Your task to perform on an android device: Open Youtube and go to "Your channel" Image 0: 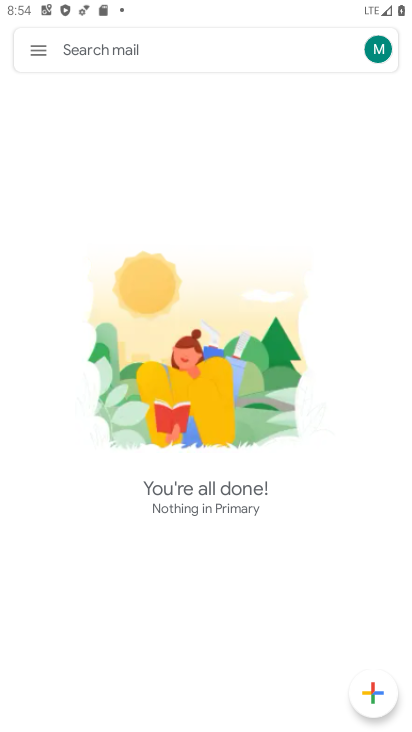
Step 0: press home button
Your task to perform on an android device: Open Youtube and go to "Your channel" Image 1: 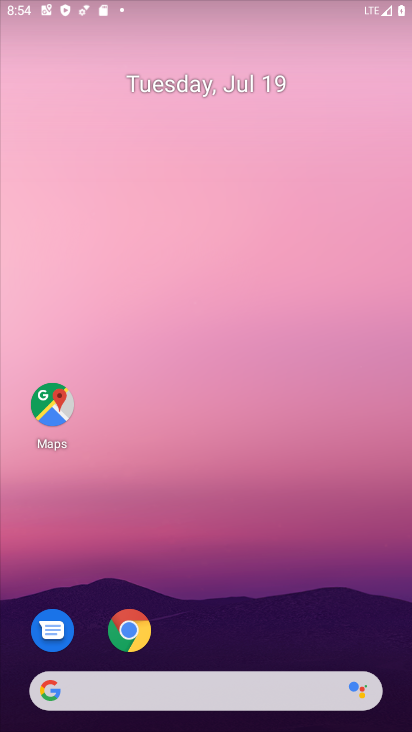
Step 1: drag from (183, 656) to (239, 85)
Your task to perform on an android device: Open Youtube and go to "Your channel" Image 2: 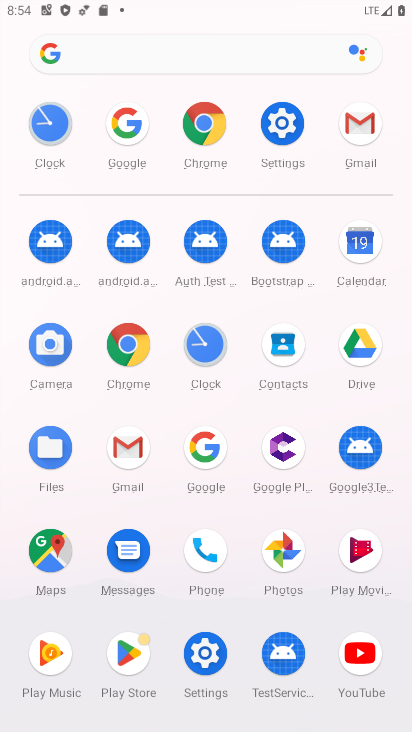
Step 2: click (355, 649)
Your task to perform on an android device: Open Youtube and go to "Your channel" Image 3: 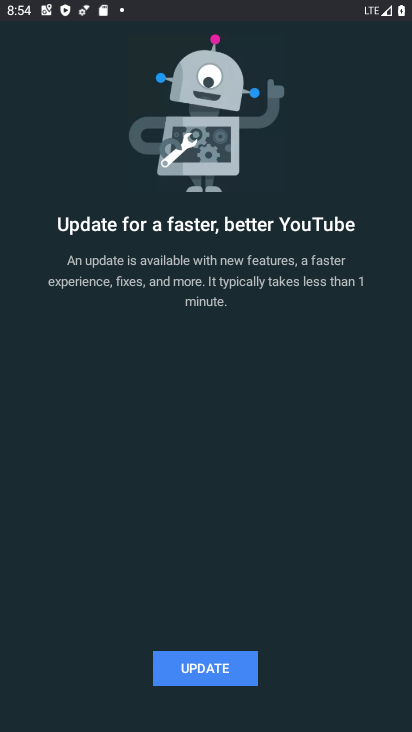
Step 3: click (210, 674)
Your task to perform on an android device: Open Youtube and go to "Your channel" Image 4: 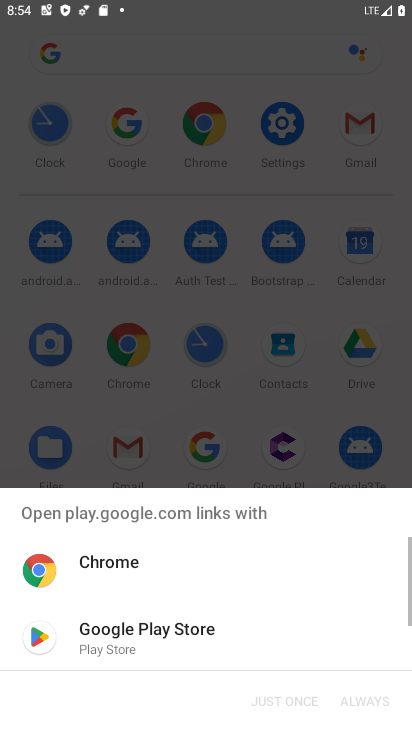
Step 4: click (116, 641)
Your task to perform on an android device: Open Youtube and go to "Your channel" Image 5: 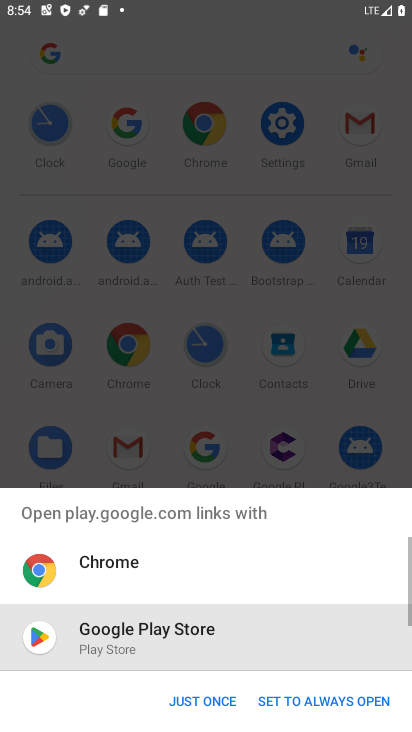
Step 5: click (204, 702)
Your task to perform on an android device: Open Youtube and go to "Your channel" Image 6: 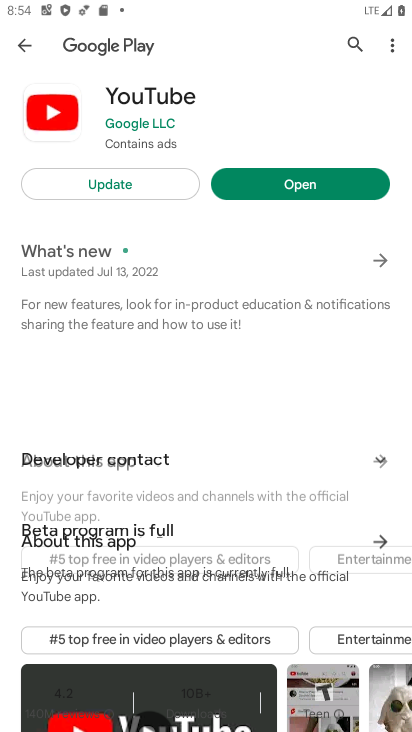
Step 6: click (80, 187)
Your task to perform on an android device: Open Youtube and go to "Your channel" Image 7: 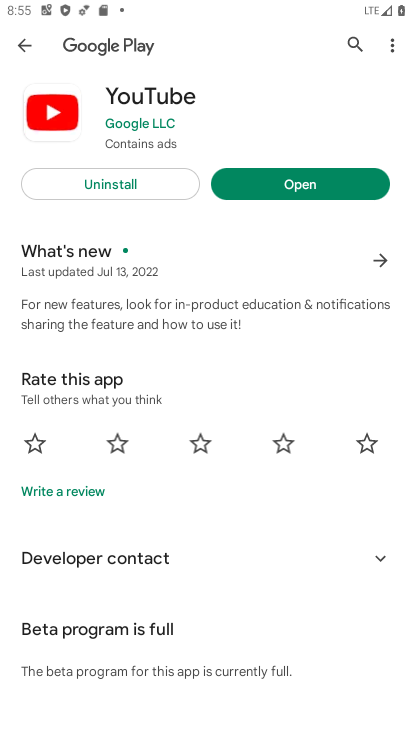
Step 7: click (319, 175)
Your task to perform on an android device: Open Youtube and go to "Your channel" Image 8: 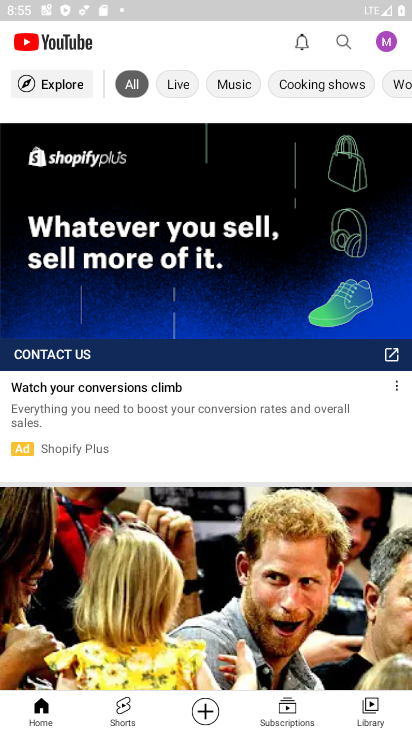
Step 8: click (382, 45)
Your task to perform on an android device: Open Youtube and go to "Your channel" Image 9: 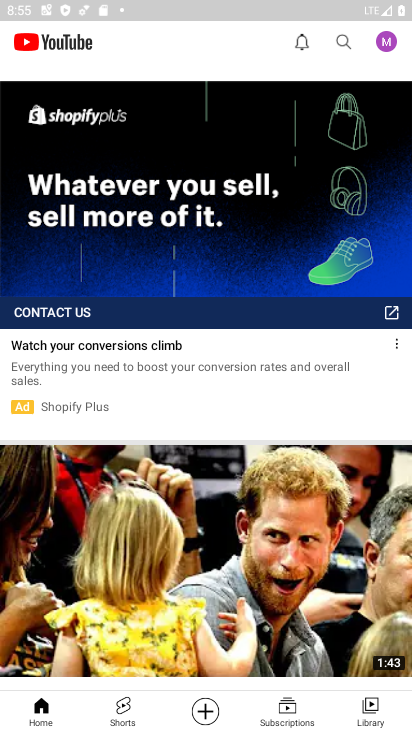
Step 9: click (389, 39)
Your task to perform on an android device: Open Youtube and go to "Your channel" Image 10: 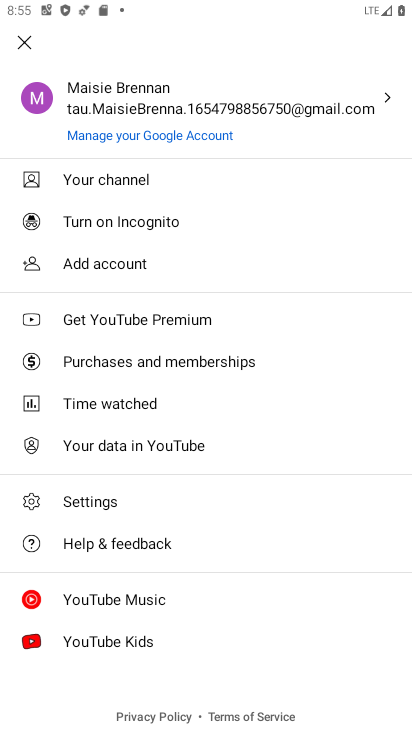
Step 10: click (126, 177)
Your task to perform on an android device: Open Youtube and go to "Your channel" Image 11: 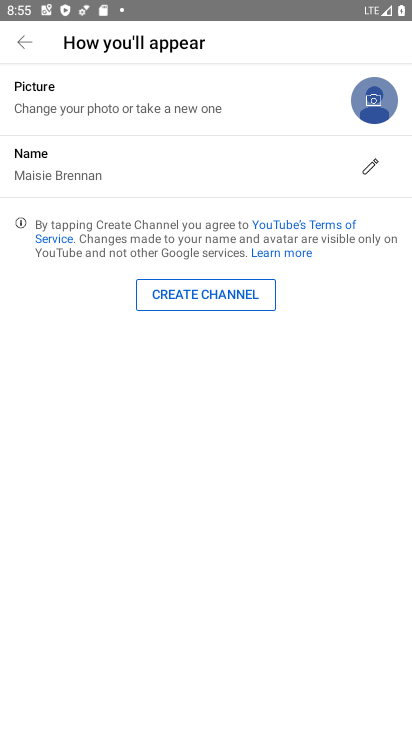
Step 11: task complete